Your task to perform on an android device: Search for seafood restaurants on Google Maps Image 0: 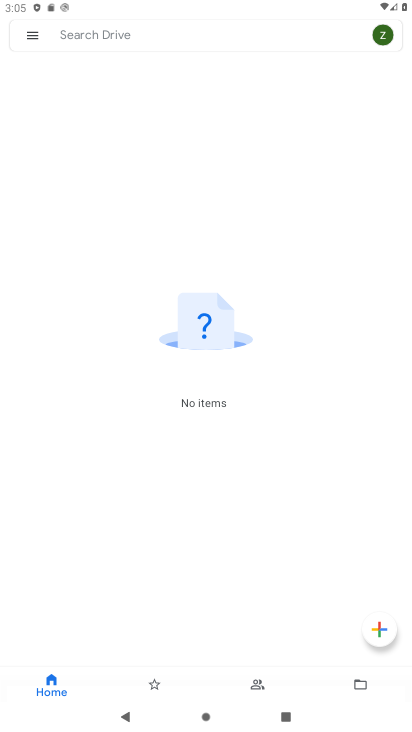
Step 0: press home button
Your task to perform on an android device: Search for seafood restaurants on Google Maps Image 1: 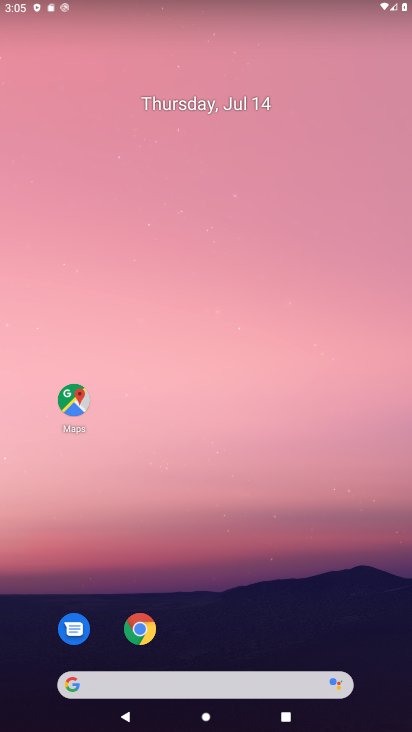
Step 1: click (72, 402)
Your task to perform on an android device: Search for seafood restaurants on Google Maps Image 2: 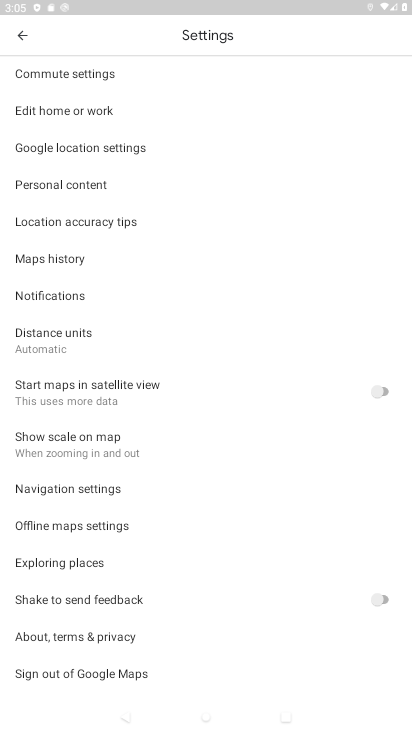
Step 2: click (24, 35)
Your task to perform on an android device: Search for seafood restaurants on Google Maps Image 3: 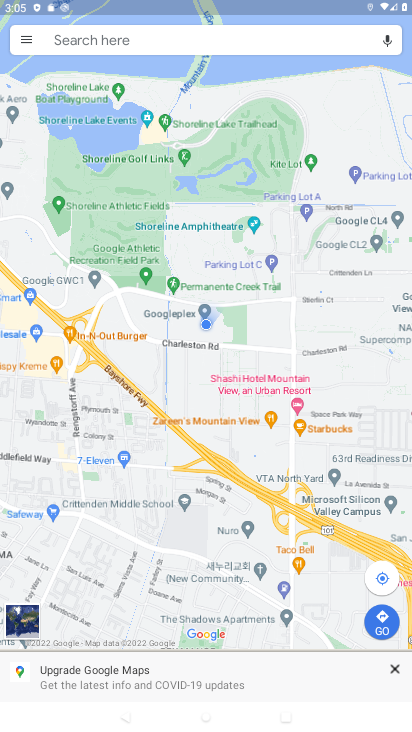
Step 3: click (89, 40)
Your task to perform on an android device: Search for seafood restaurants on Google Maps Image 4: 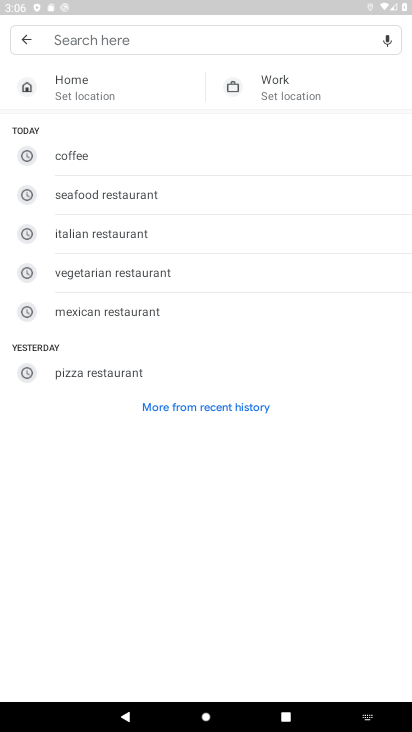
Step 4: type "seafood"
Your task to perform on an android device: Search for seafood restaurants on Google Maps Image 5: 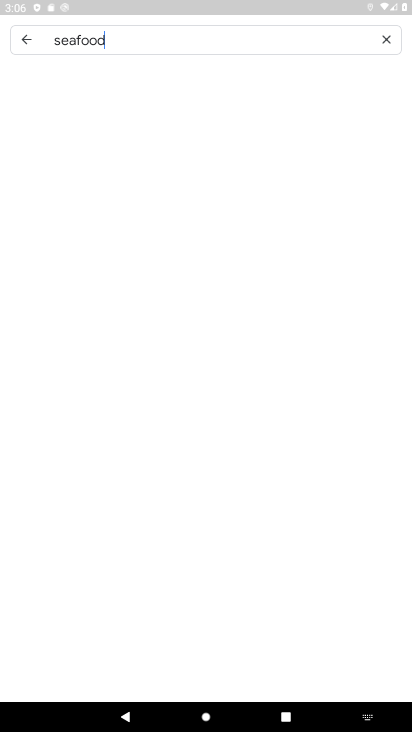
Step 5: type ""
Your task to perform on an android device: Search for seafood restaurants on Google Maps Image 6: 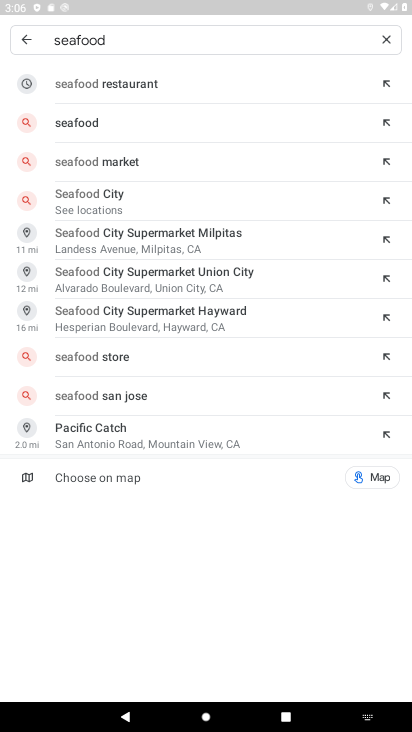
Step 6: click (69, 78)
Your task to perform on an android device: Search for seafood restaurants on Google Maps Image 7: 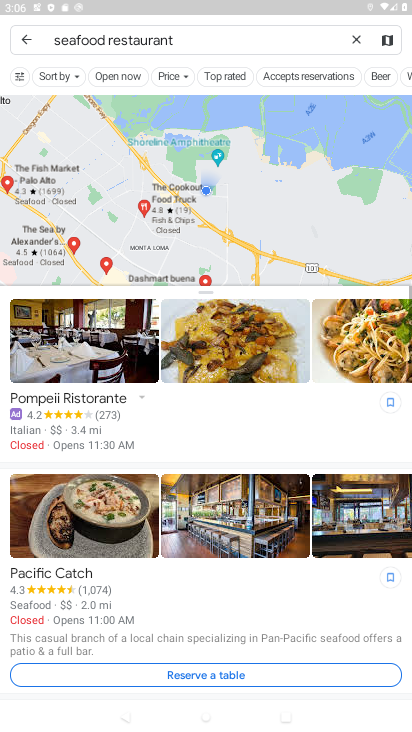
Step 7: task complete